Your task to perform on an android device: install app "ColorNote Notepad Notes" Image 0: 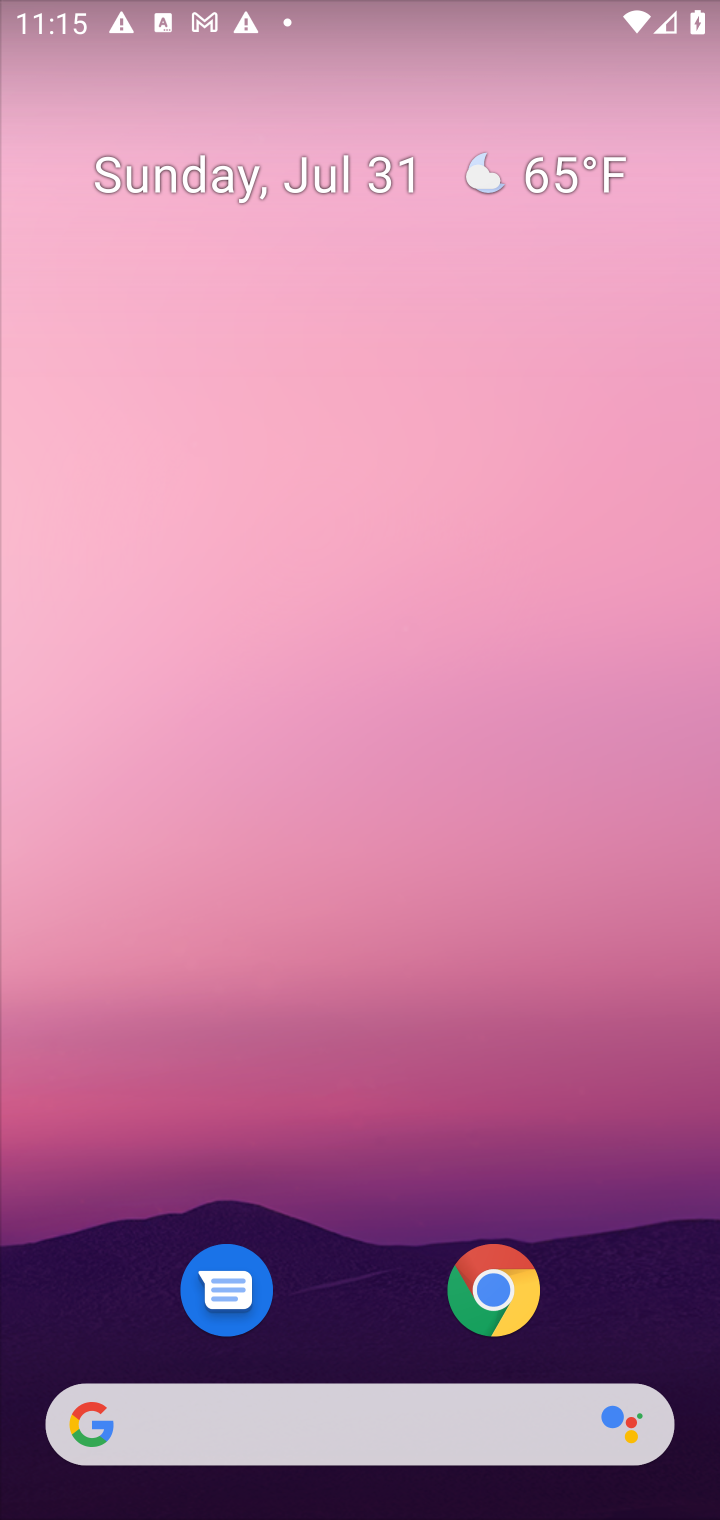
Step 0: drag from (597, 1099) to (579, 151)
Your task to perform on an android device: install app "ColorNote Notepad Notes" Image 1: 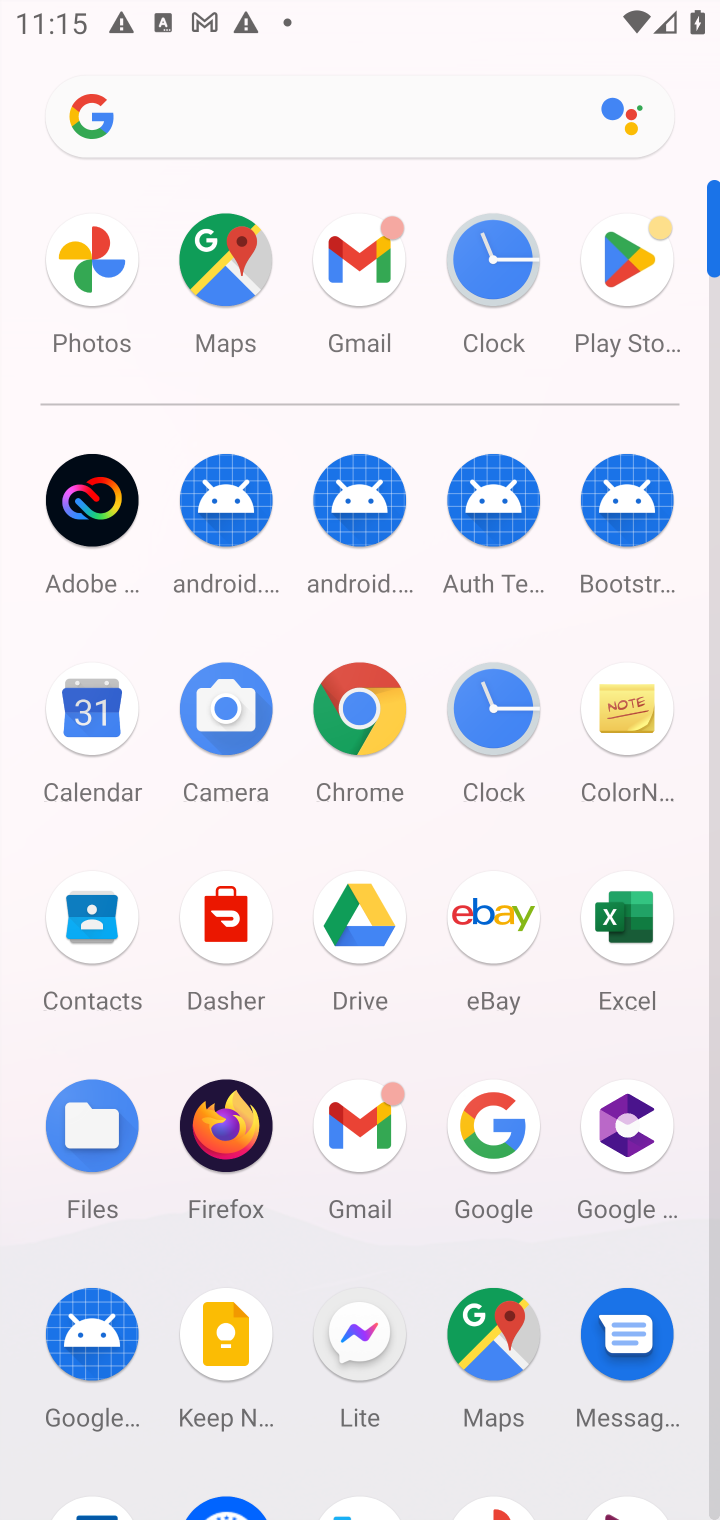
Step 1: click (632, 271)
Your task to perform on an android device: install app "ColorNote Notepad Notes" Image 2: 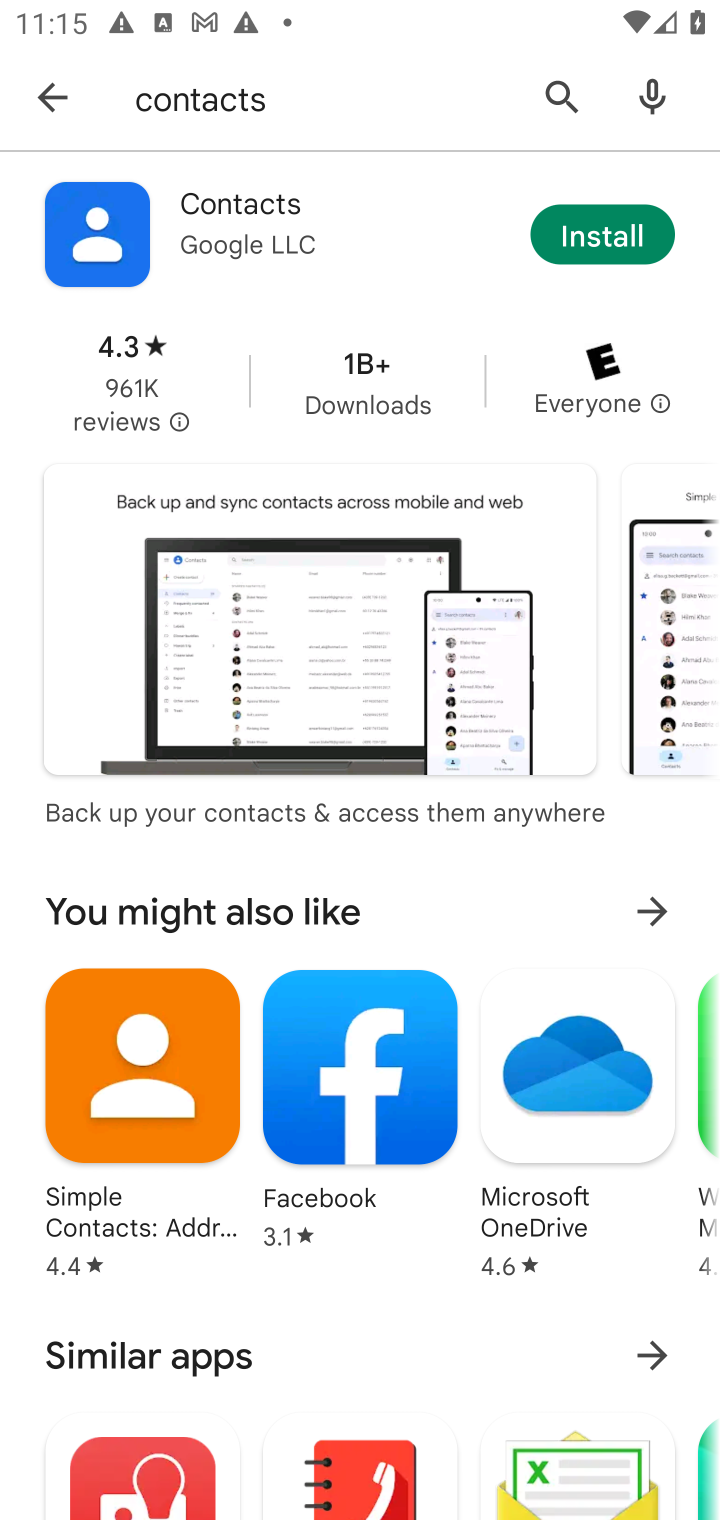
Step 2: click (553, 77)
Your task to perform on an android device: install app "ColorNote Notepad Notes" Image 3: 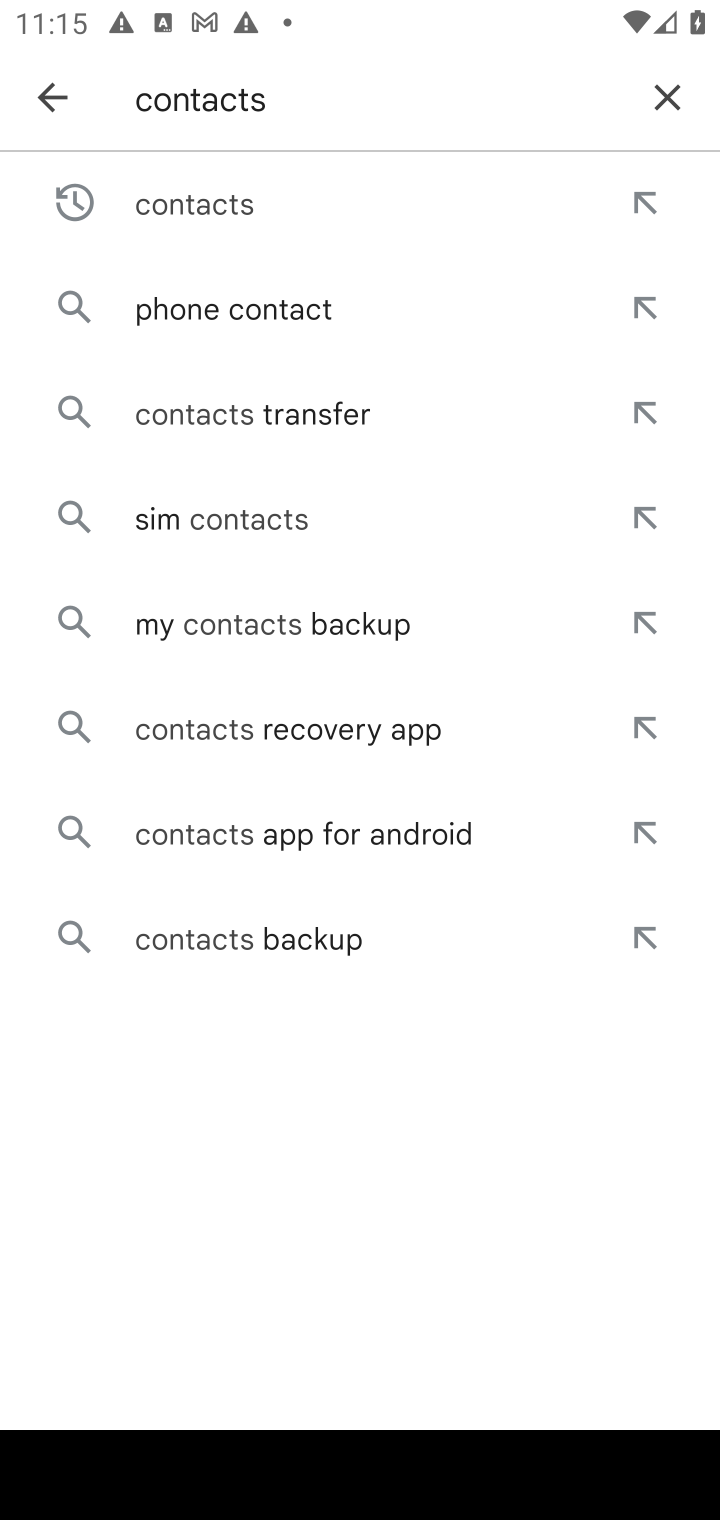
Step 3: click (680, 88)
Your task to perform on an android device: install app "ColorNote Notepad Notes" Image 4: 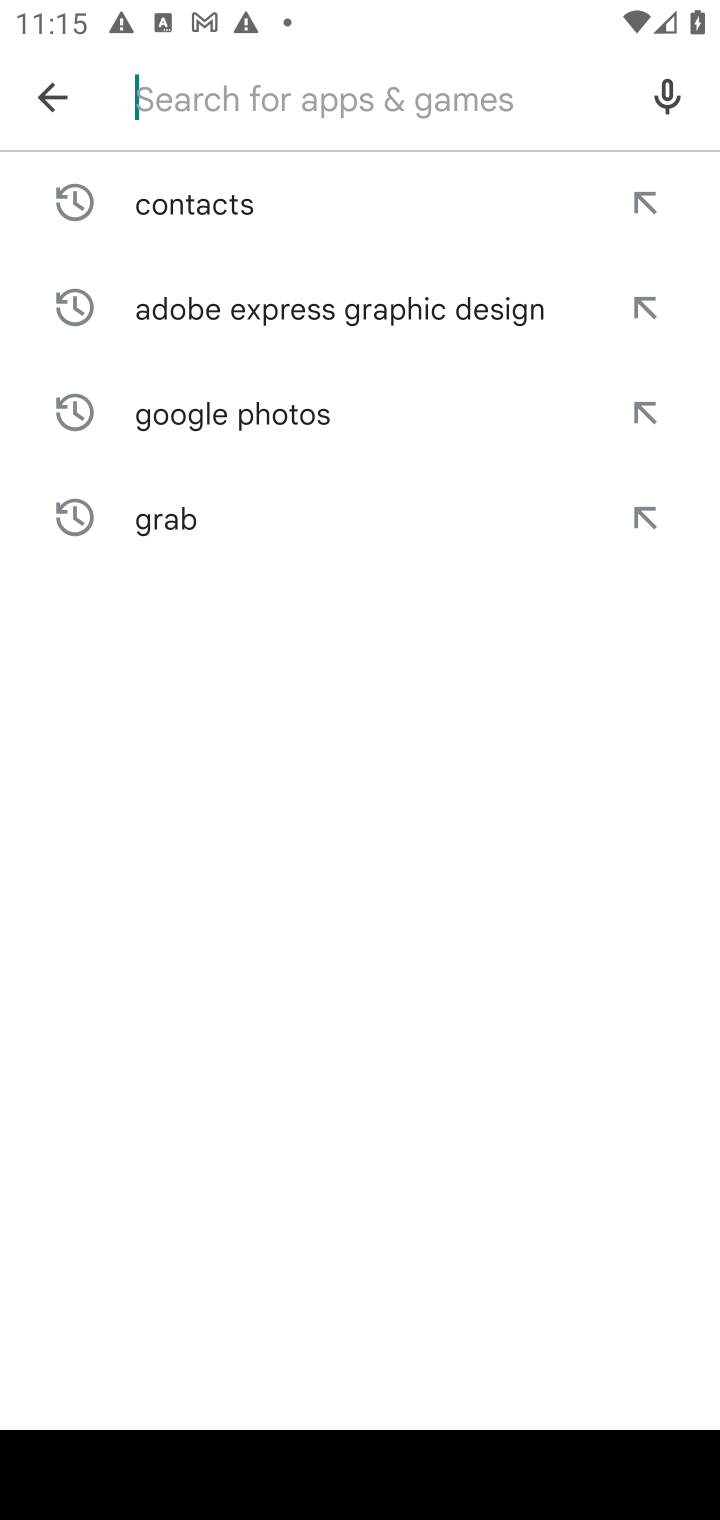
Step 4: type "ColorNote Notepad Notes"
Your task to perform on an android device: install app "ColorNote Notepad Notes" Image 5: 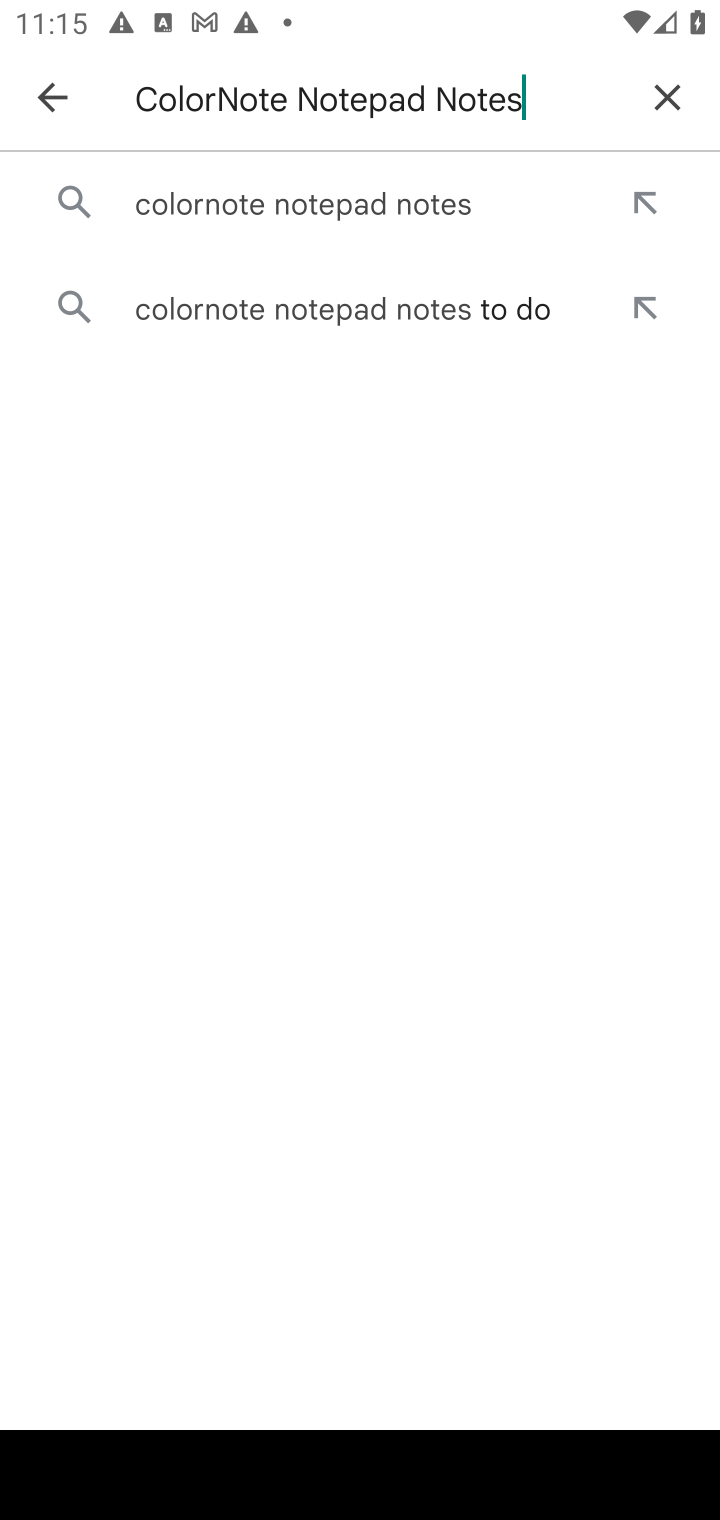
Step 5: click (455, 212)
Your task to perform on an android device: install app "ColorNote Notepad Notes" Image 6: 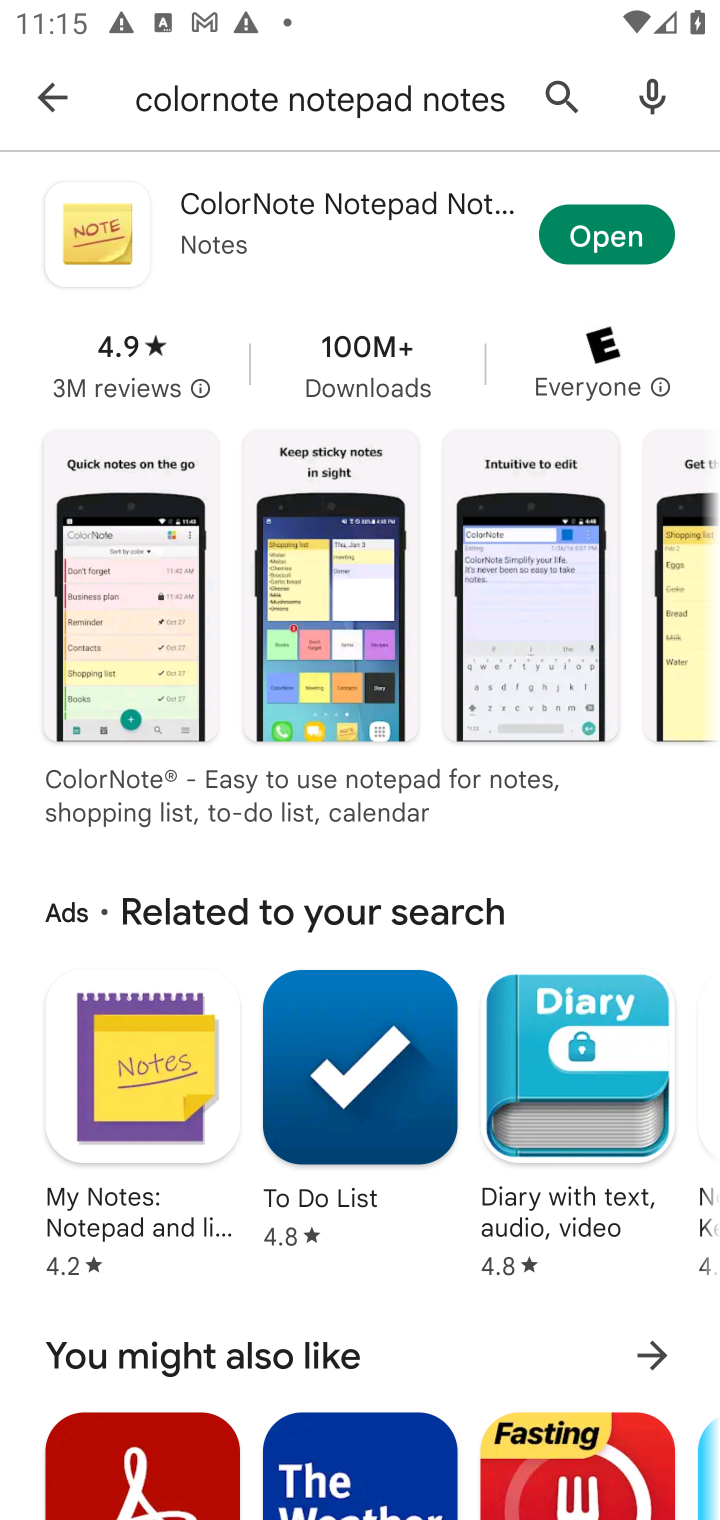
Step 6: task complete